Your task to perform on an android device: Open my contact list Image 0: 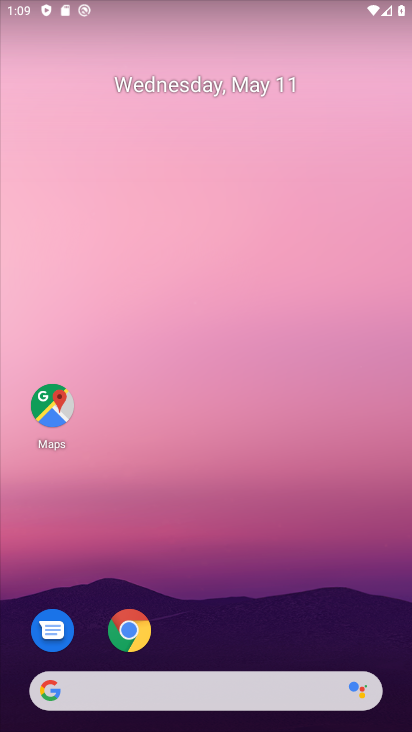
Step 0: drag from (190, 630) to (296, 133)
Your task to perform on an android device: Open my contact list Image 1: 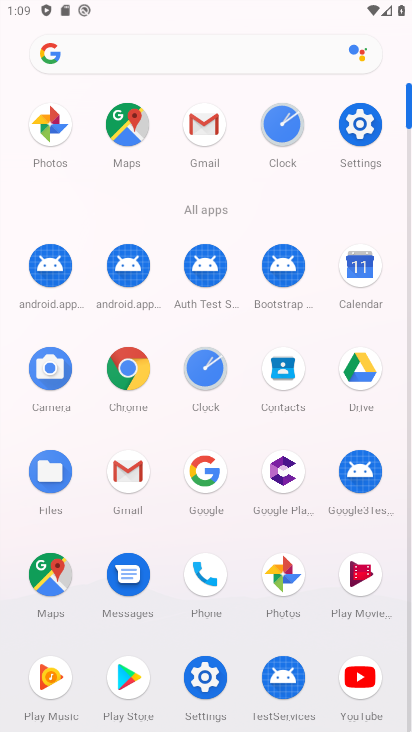
Step 1: click (288, 370)
Your task to perform on an android device: Open my contact list Image 2: 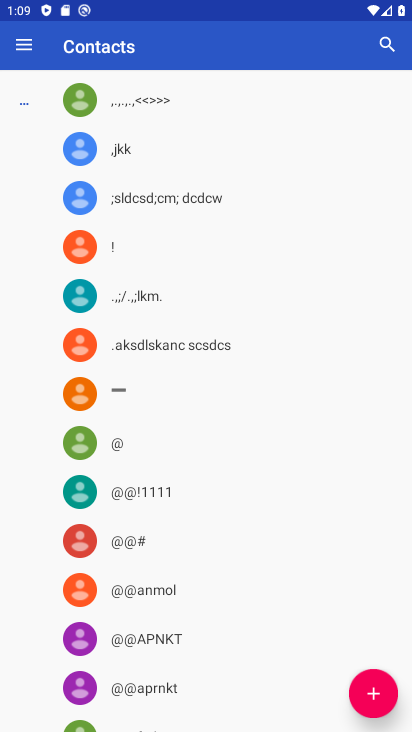
Step 2: task complete